Your task to perform on an android device: Open display settings Image 0: 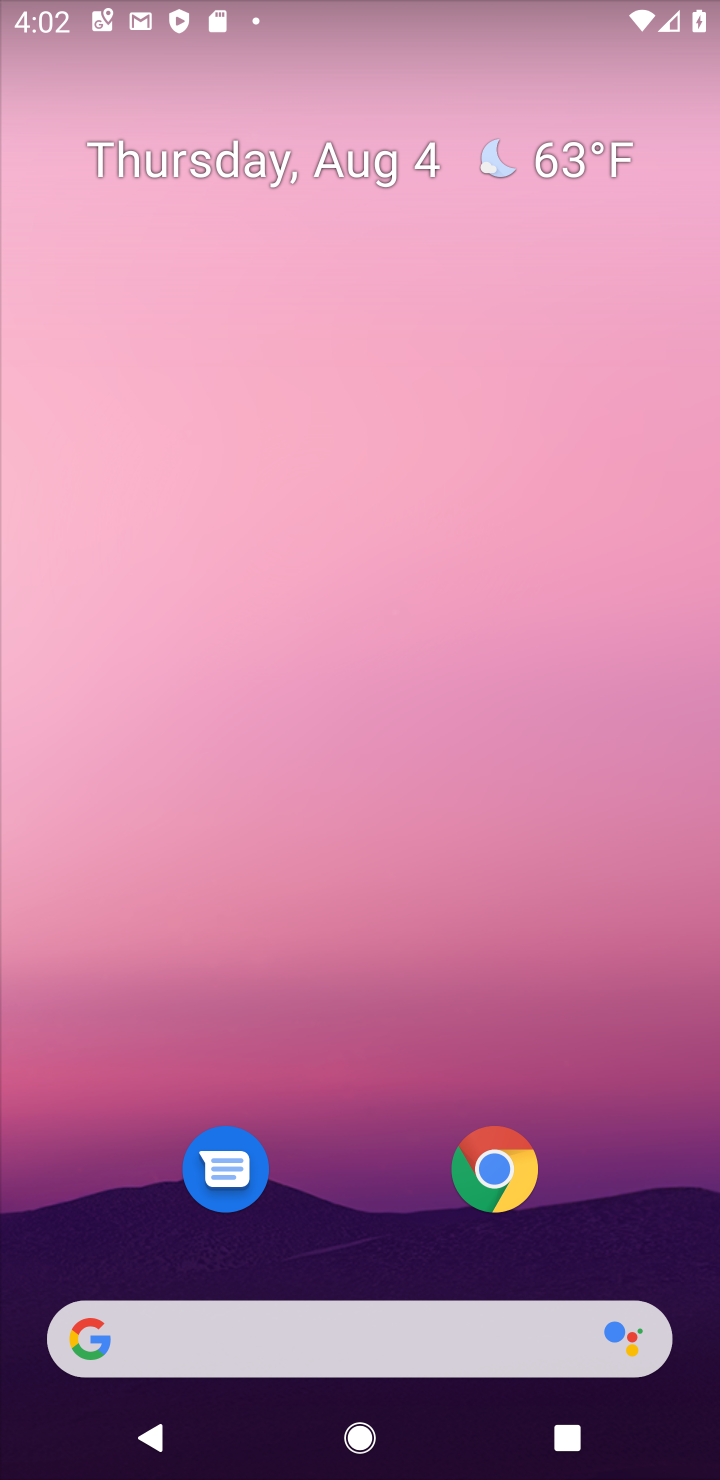
Step 0: drag from (376, 1108) to (485, 27)
Your task to perform on an android device: Open display settings Image 1: 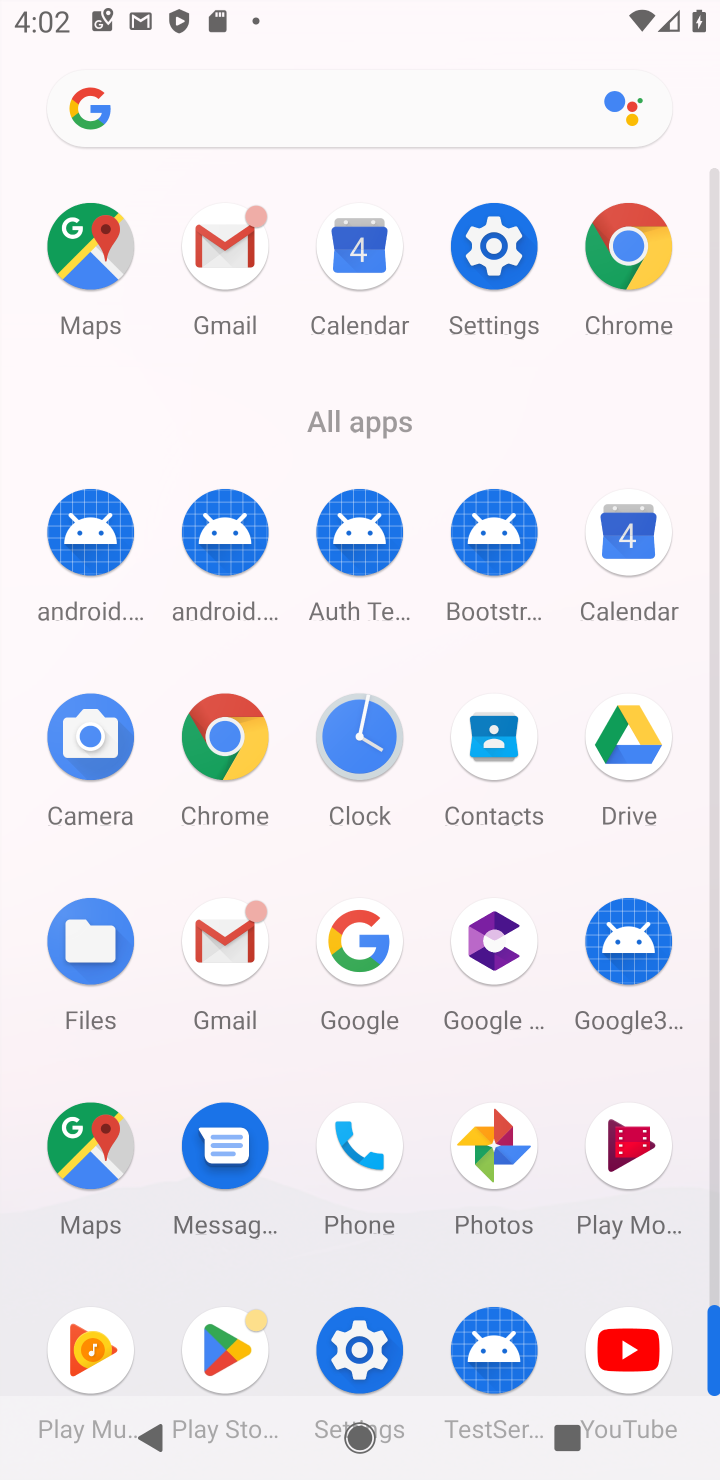
Step 1: click (506, 369)
Your task to perform on an android device: Open display settings Image 2: 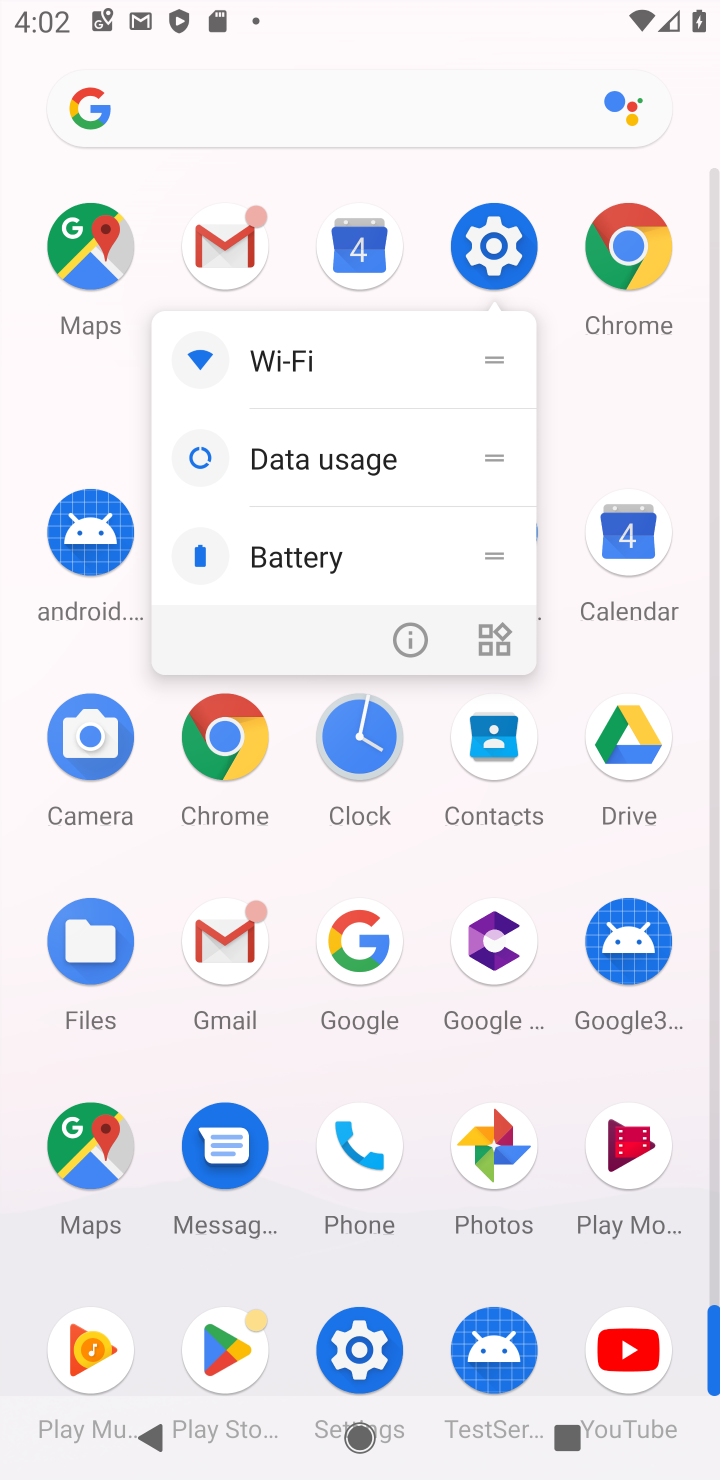
Step 2: click (491, 241)
Your task to perform on an android device: Open display settings Image 3: 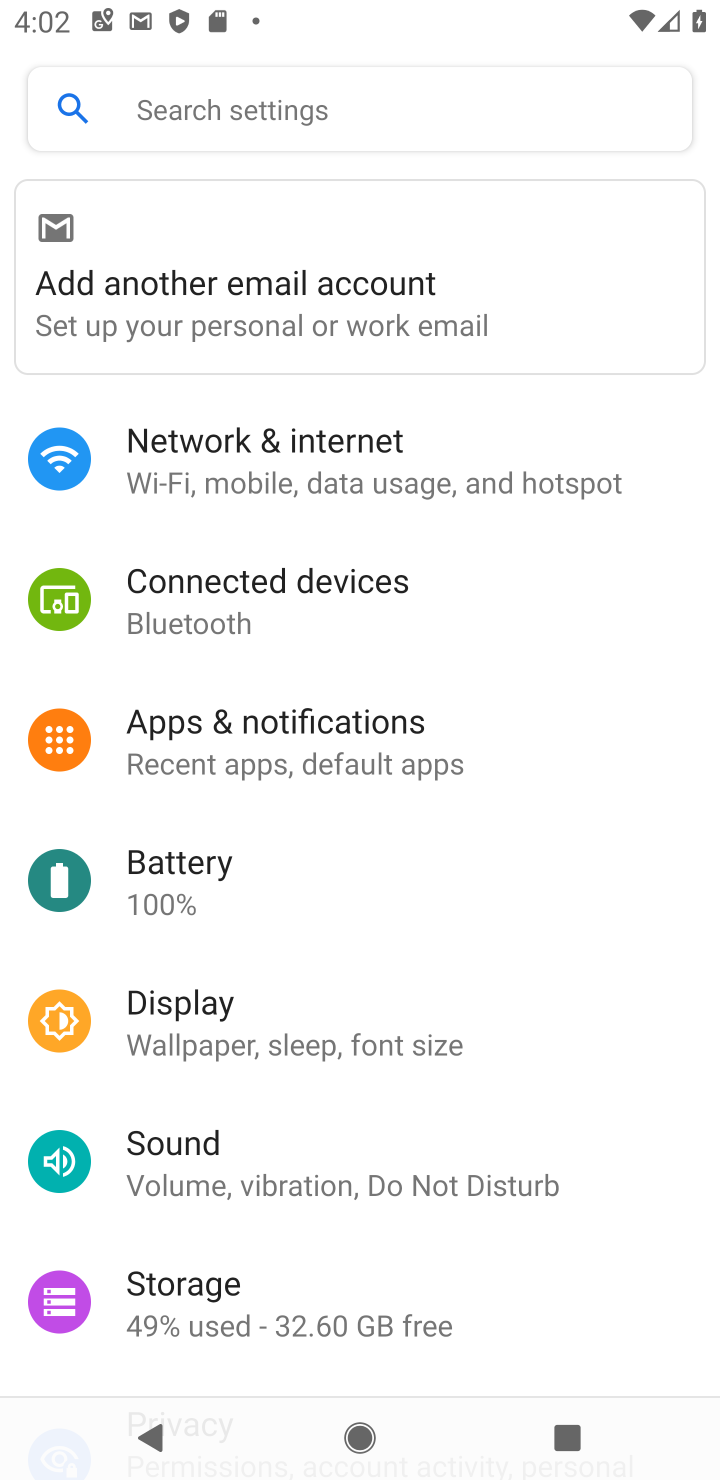
Step 3: click (175, 1032)
Your task to perform on an android device: Open display settings Image 4: 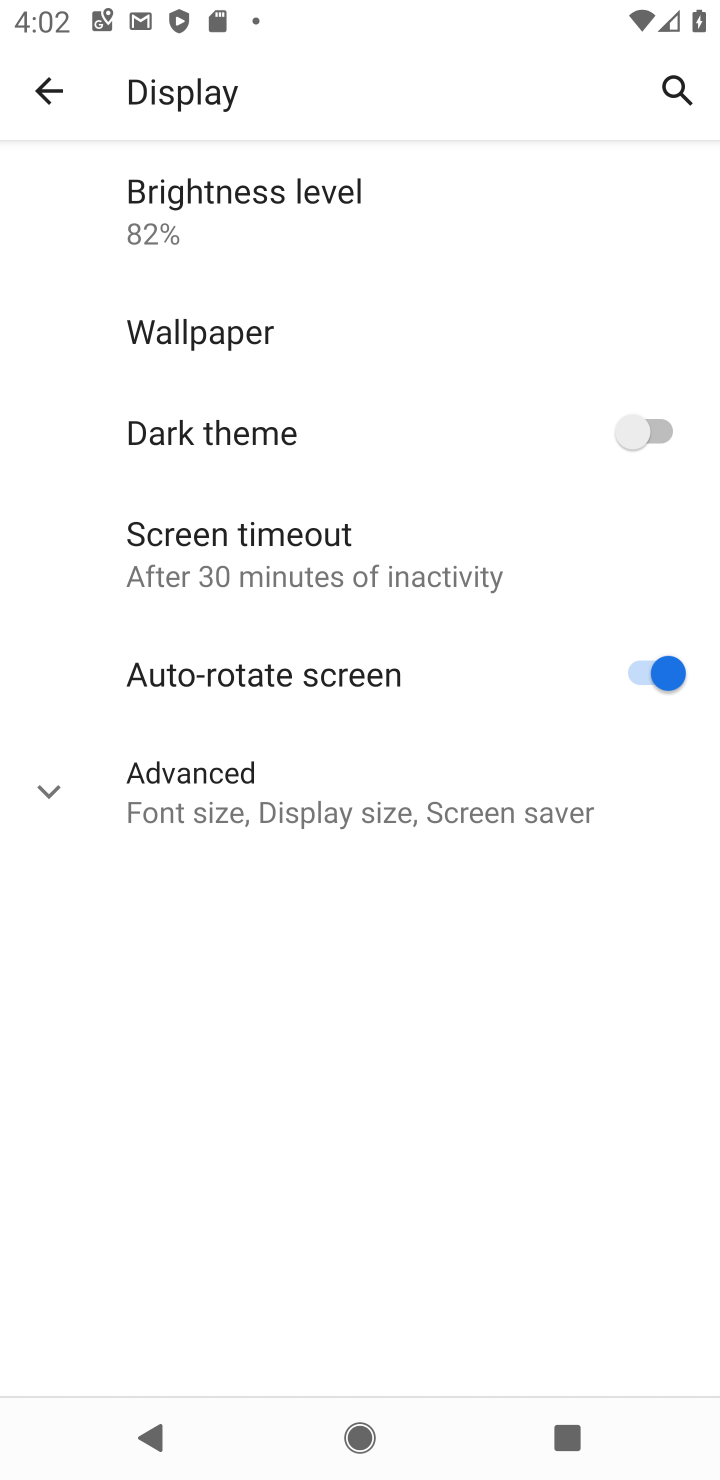
Step 4: task complete